Your task to perform on an android device: find snoozed emails in the gmail app Image 0: 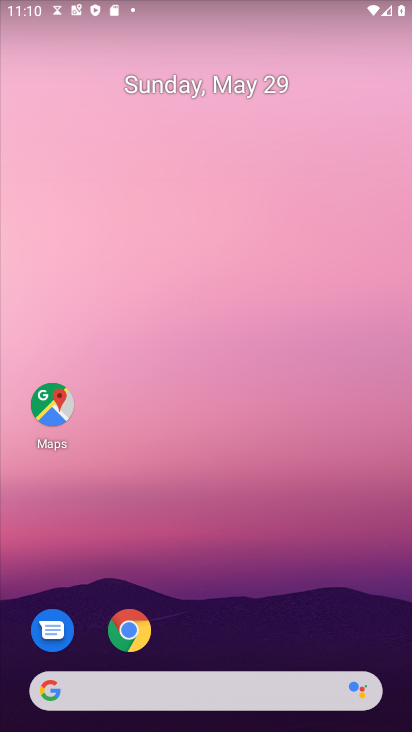
Step 0: drag from (236, 603) to (272, 119)
Your task to perform on an android device: find snoozed emails in the gmail app Image 1: 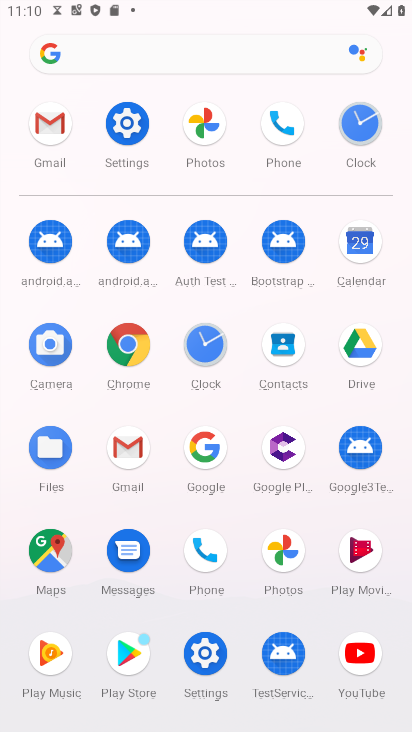
Step 1: click (46, 139)
Your task to perform on an android device: find snoozed emails in the gmail app Image 2: 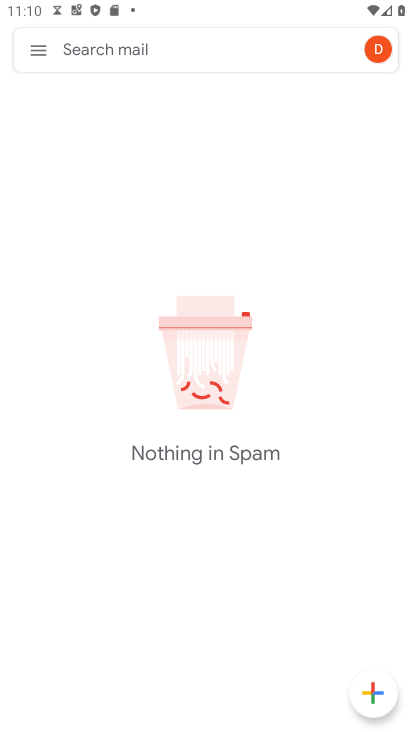
Step 2: click (41, 30)
Your task to perform on an android device: find snoozed emails in the gmail app Image 3: 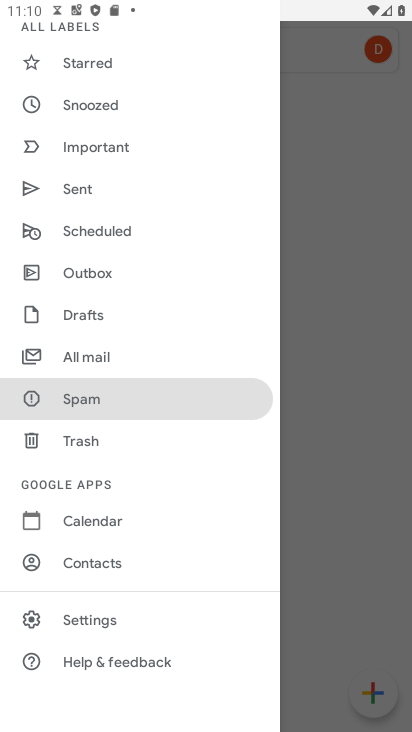
Step 3: drag from (137, 192) to (105, 541)
Your task to perform on an android device: find snoozed emails in the gmail app Image 4: 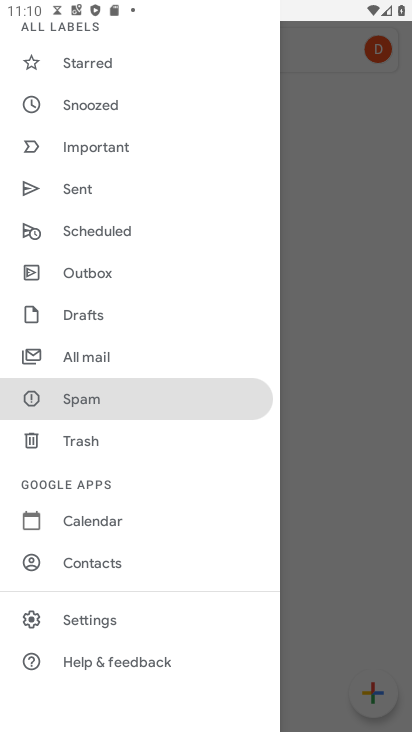
Step 4: click (132, 98)
Your task to perform on an android device: find snoozed emails in the gmail app Image 5: 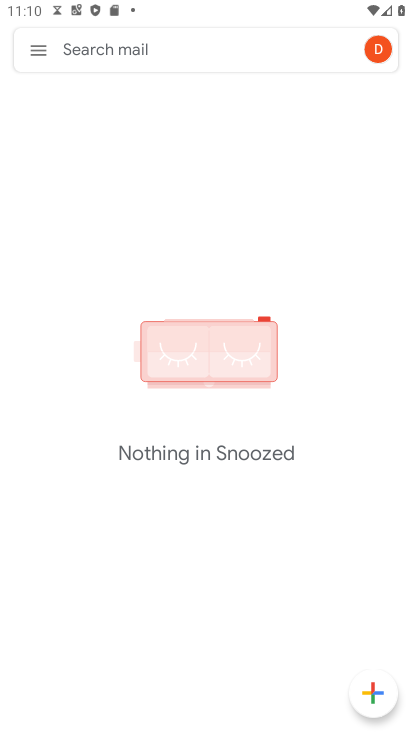
Step 5: task complete